Your task to perform on an android device: Open settings Image 0: 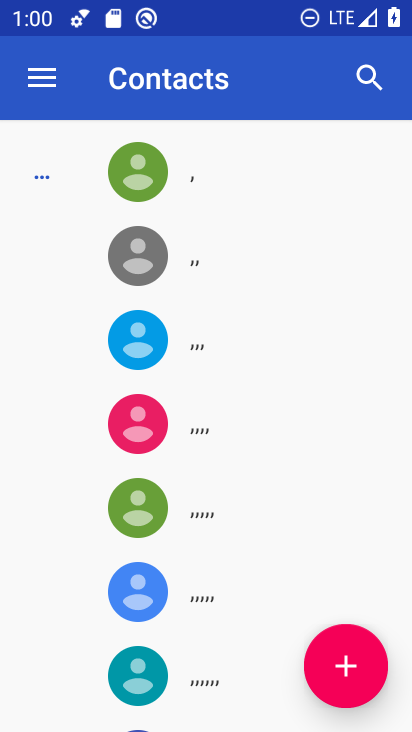
Step 0: press home button
Your task to perform on an android device: Open settings Image 1: 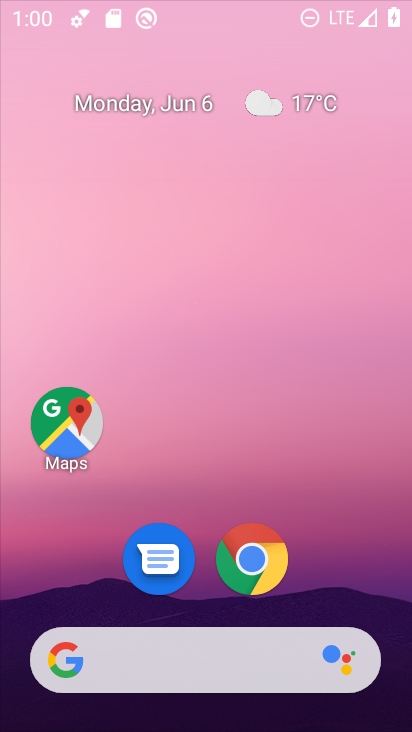
Step 1: drag from (224, 679) to (278, 139)
Your task to perform on an android device: Open settings Image 2: 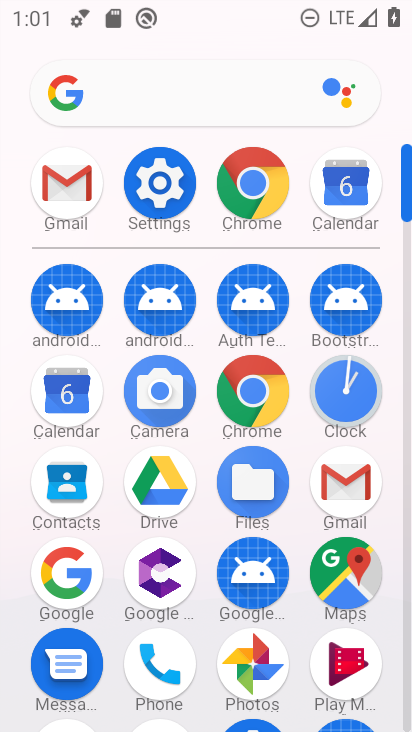
Step 2: drag from (168, 585) to (196, 218)
Your task to perform on an android device: Open settings Image 3: 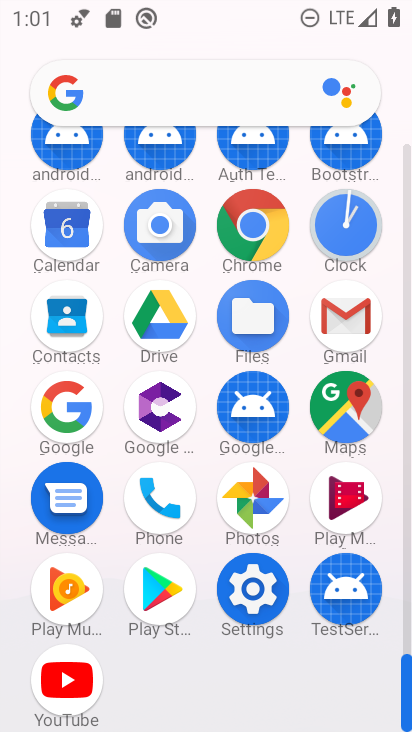
Step 3: click (261, 600)
Your task to perform on an android device: Open settings Image 4: 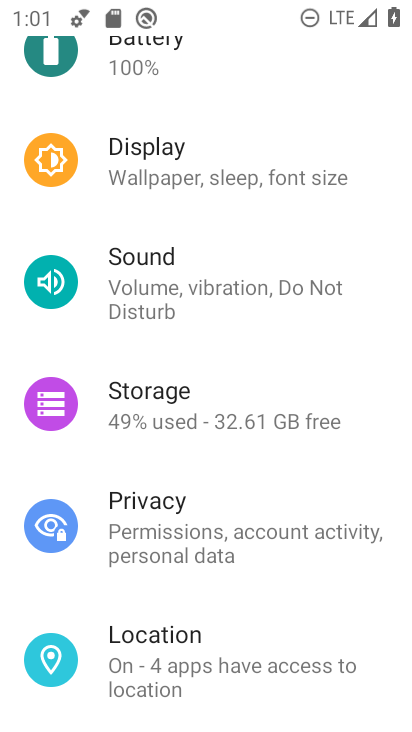
Step 4: task complete